Your task to perform on an android device: turn on javascript in the chrome app Image 0: 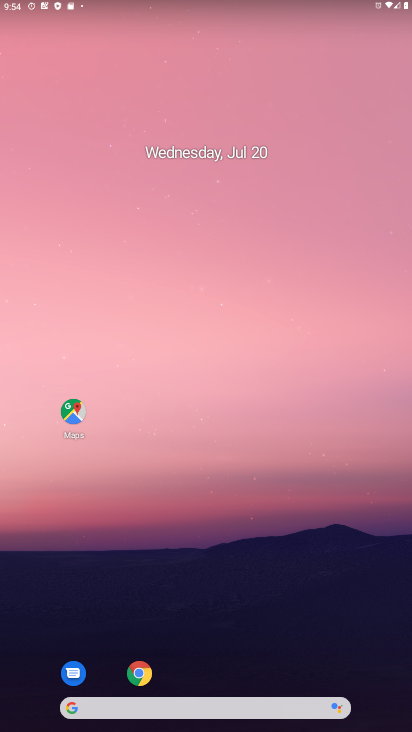
Step 0: click (134, 679)
Your task to perform on an android device: turn on javascript in the chrome app Image 1: 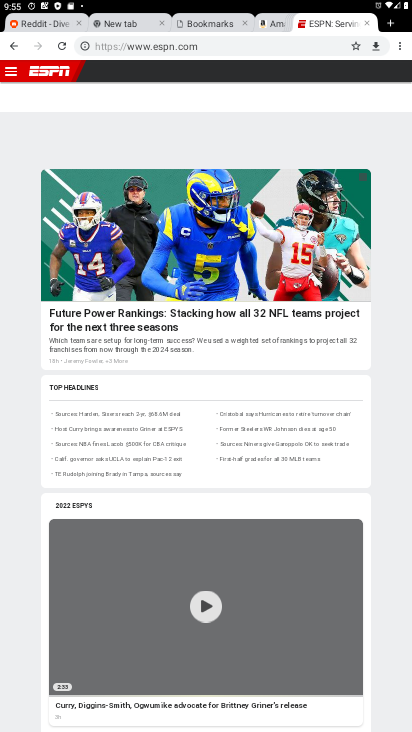
Step 1: click (401, 45)
Your task to perform on an android device: turn on javascript in the chrome app Image 2: 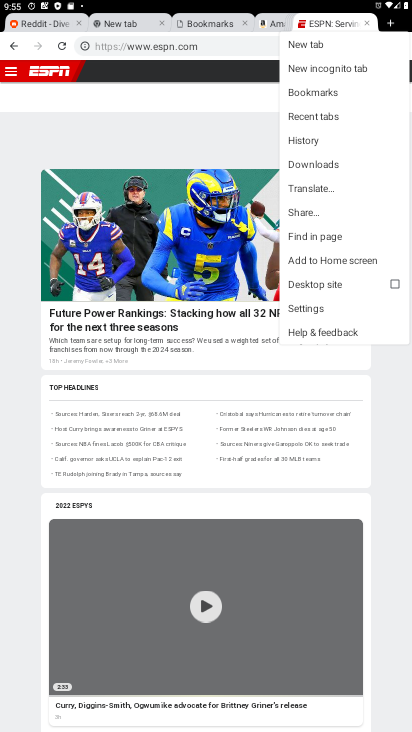
Step 2: click (308, 308)
Your task to perform on an android device: turn on javascript in the chrome app Image 3: 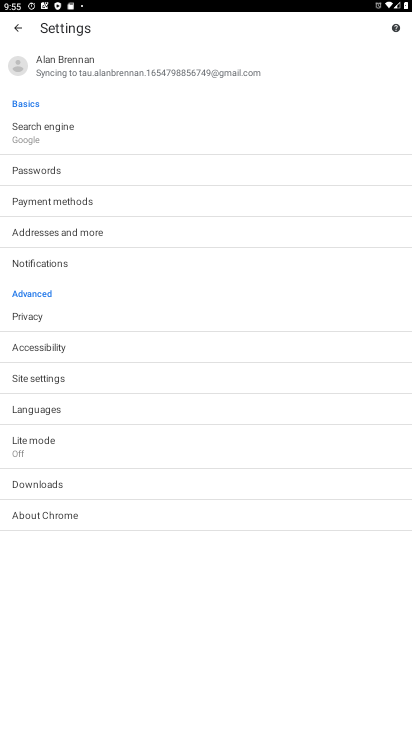
Step 3: click (45, 379)
Your task to perform on an android device: turn on javascript in the chrome app Image 4: 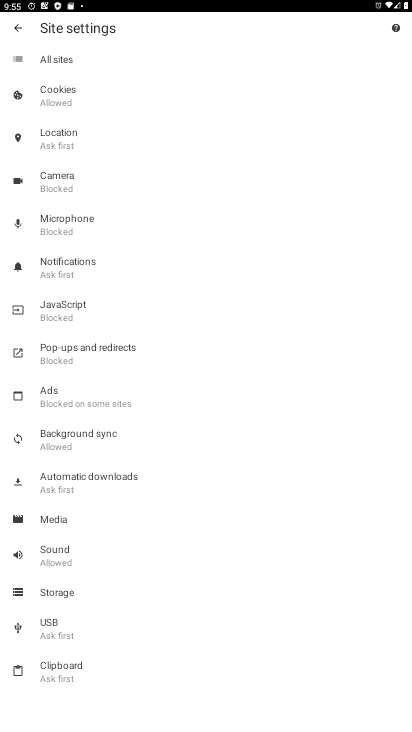
Step 4: click (65, 309)
Your task to perform on an android device: turn on javascript in the chrome app Image 5: 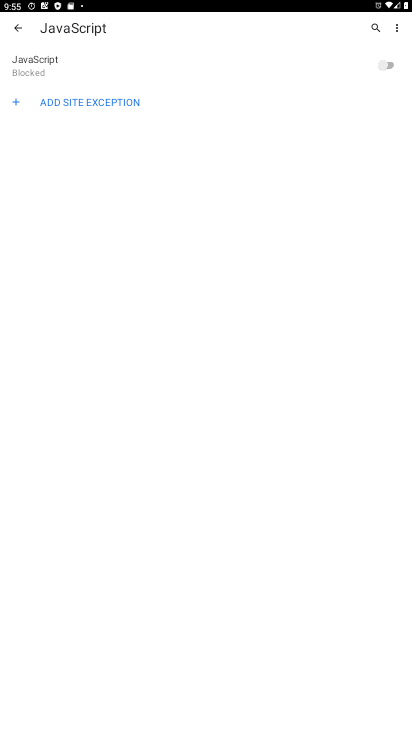
Step 5: click (390, 62)
Your task to perform on an android device: turn on javascript in the chrome app Image 6: 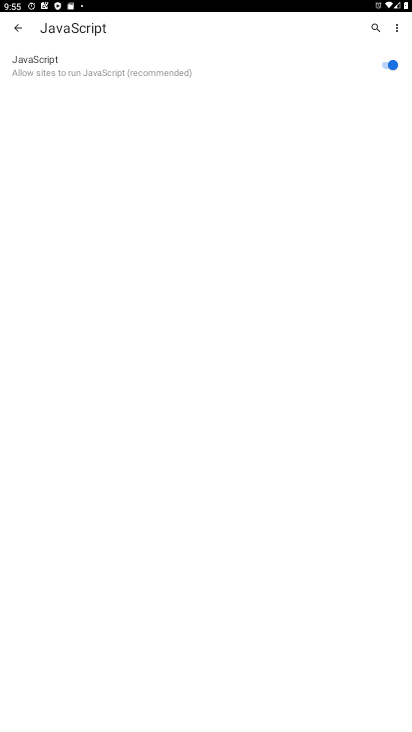
Step 6: task complete